Your task to perform on an android device: Open the calendar app, open the side menu, and click the "Day" option Image 0: 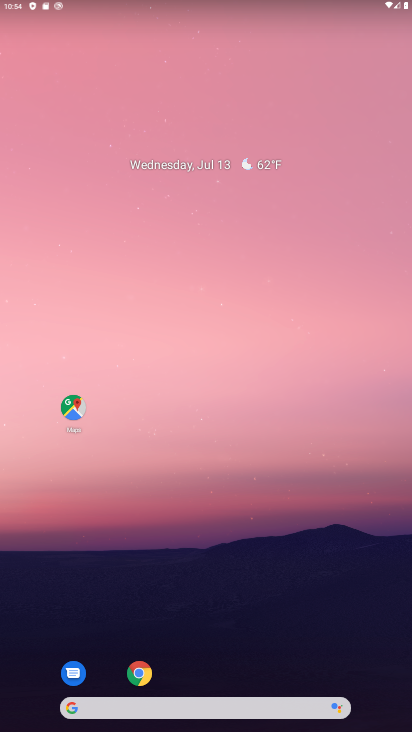
Step 0: drag from (206, 688) to (214, 141)
Your task to perform on an android device: Open the calendar app, open the side menu, and click the "Day" option Image 1: 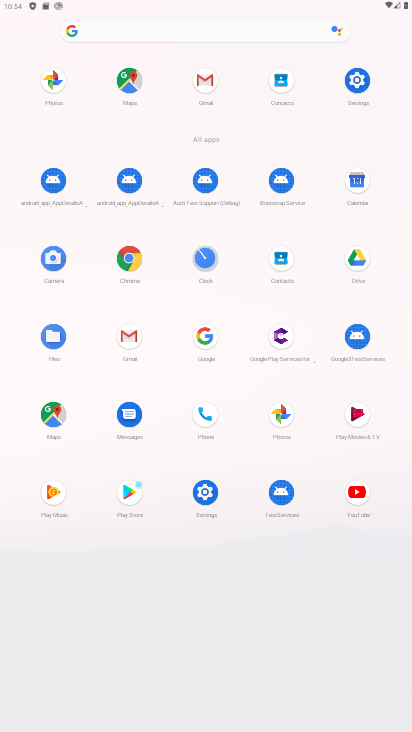
Step 1: click (358, 185)
Your task to perform on an android device: Open the calendar app, open the side menu, and click the "Day" option Image 2: 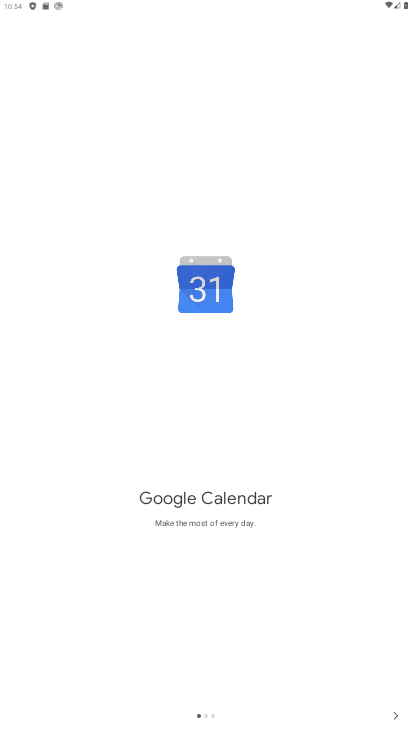
Step 2: click (394, 711)
Your task to perform on an android device: Open the calendar app, open the side menu, and click the "Day" option Image 3: 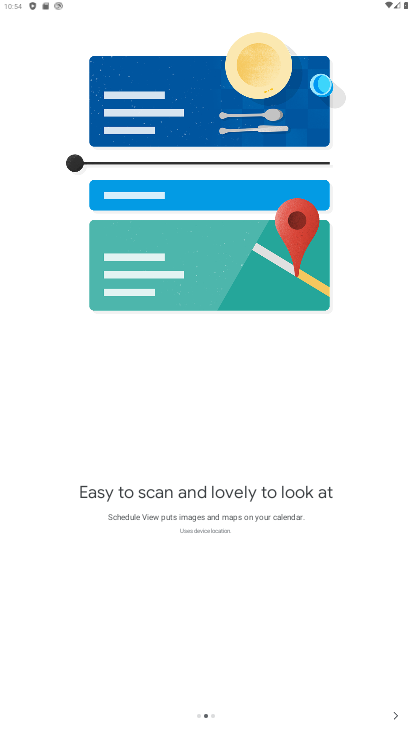
Step 3: click (392, 711)
Your task to perform on an android device: Open the calendar app, open the side menu, and click the "Day" option Image 4: 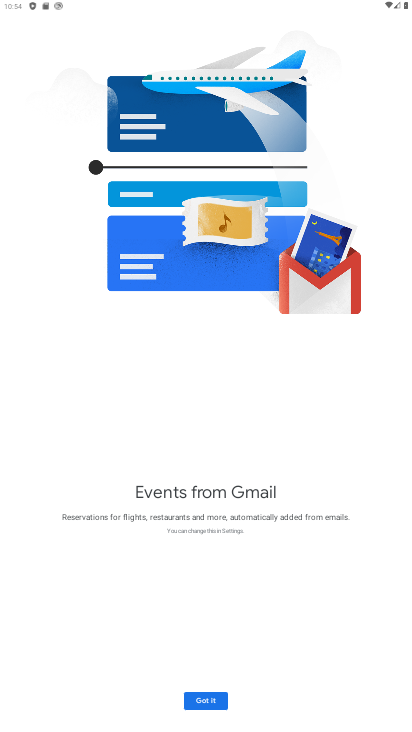
Step 4: click (203, 699)
Your task to perform on an android device: Open the calendar app, open the side menu, and click the "Day" option Image 5: 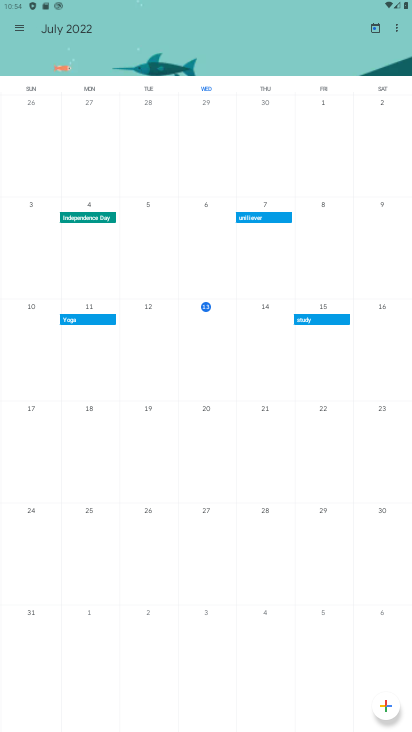
Step 5: click (9, 33)
Your task to perform on an android device: Open the calendar app, open the side menu, and click the "Day" option Image 6: 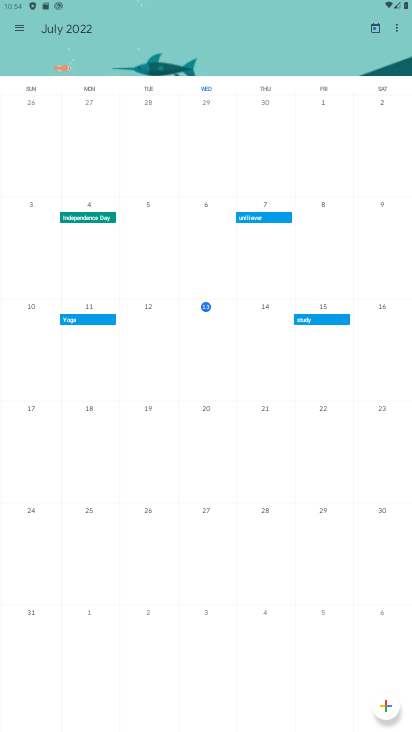
Step 6: click (23, 26)
Your task to perform on an android device: Open the calendar app, open the side menu, and click the "Day" option Image 7: 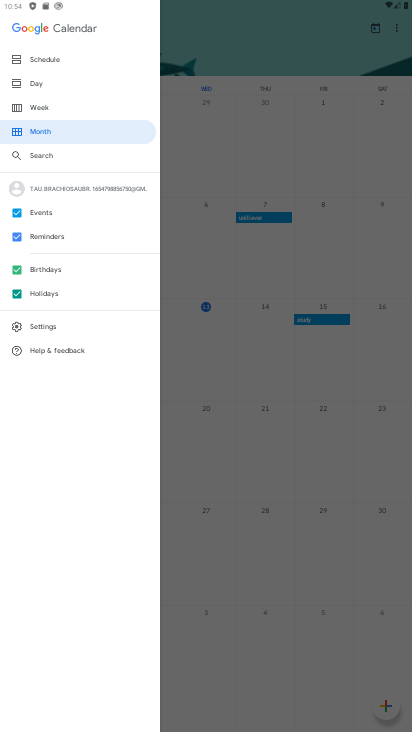
Step 7: click (45, 81)
Your task to perform on an android device: Open the calendar app, open the side menu, and click the "Day" option Image 8: 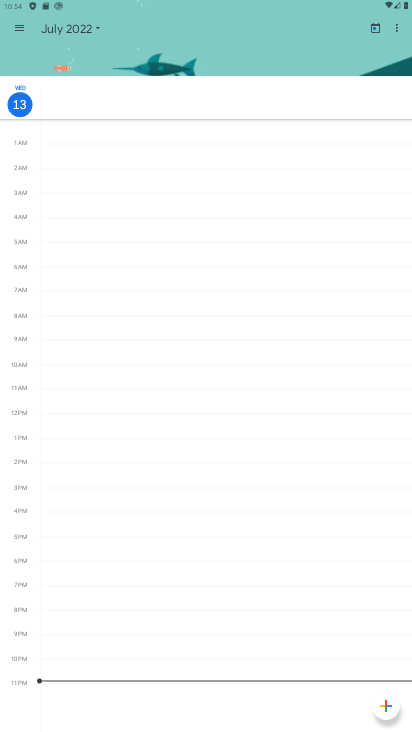
Step 8: task complete